Your task to perform on an android device: move an email to a new category in the gmail app Image 0: 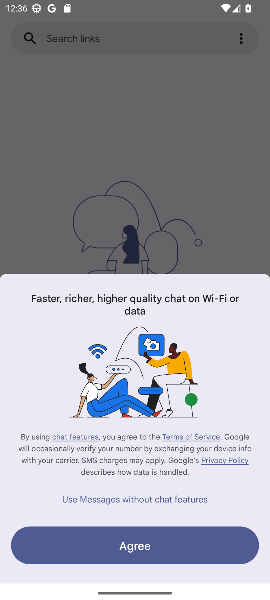
Step 0: press home button
Your task to perform on an android device: move an email to a new category in the gmail app Image 1: 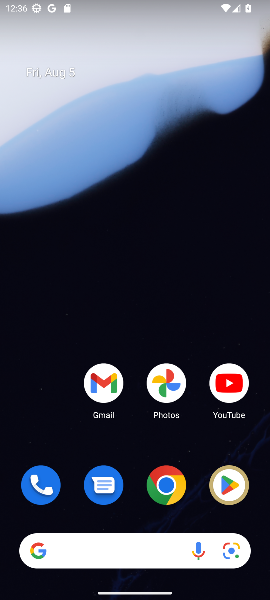
Step 1: click (107, 385)
Your task to perform on an android device: move an email to a new category in the gmail app Image 2: 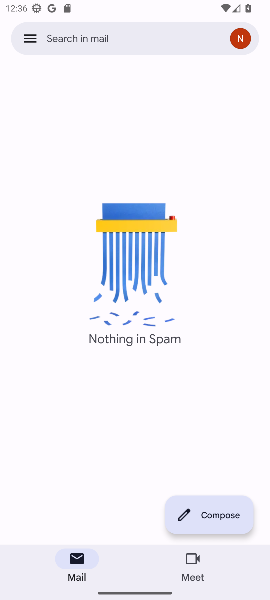
Step 2: click (31, 34)
Your task to perform on an android device: move an email to a new category in the gmail app Image 3: 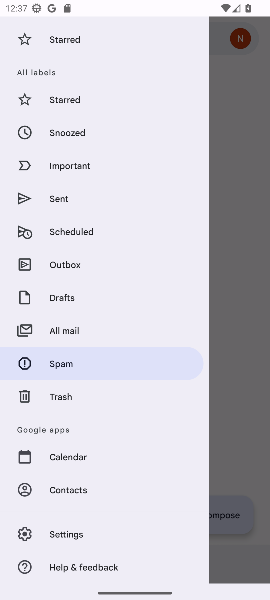
Step 3: click (66, 329)
Your task to perform on an android device: move an email to a new category in the gmail app Image 4: 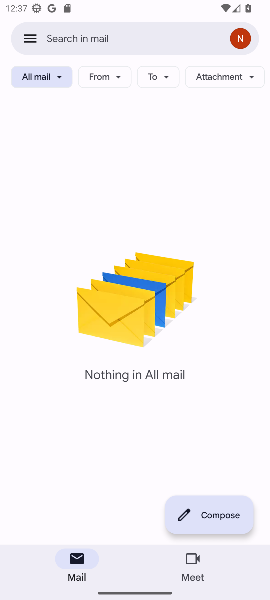
Step 4: task complete